Your task to perform on an android device: Open the calendar and show me this week's events? Image 0: 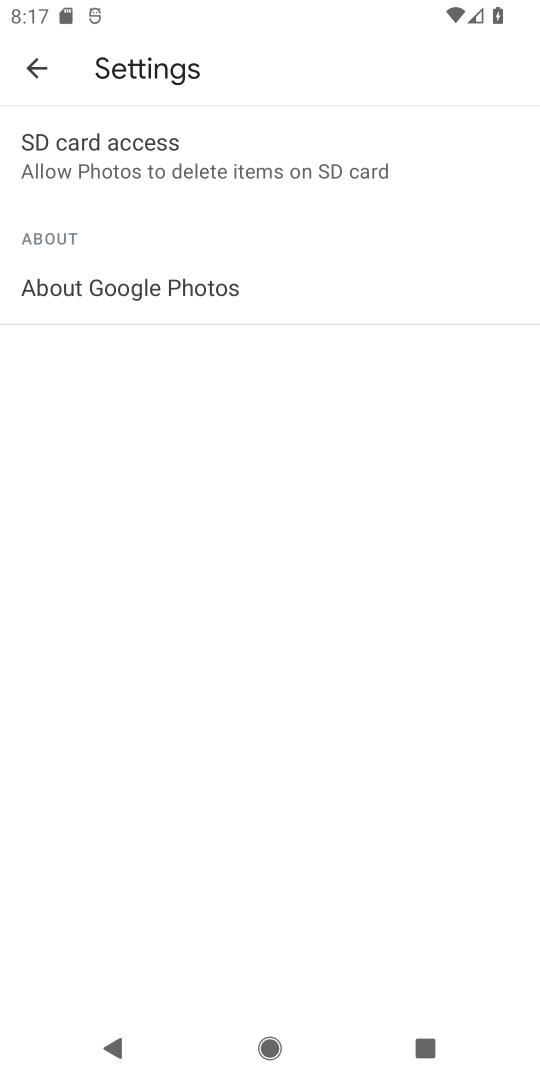
Step 0: press home button
Your task to perform on an android device: Open the calendar and show me this week's events? Image 1: 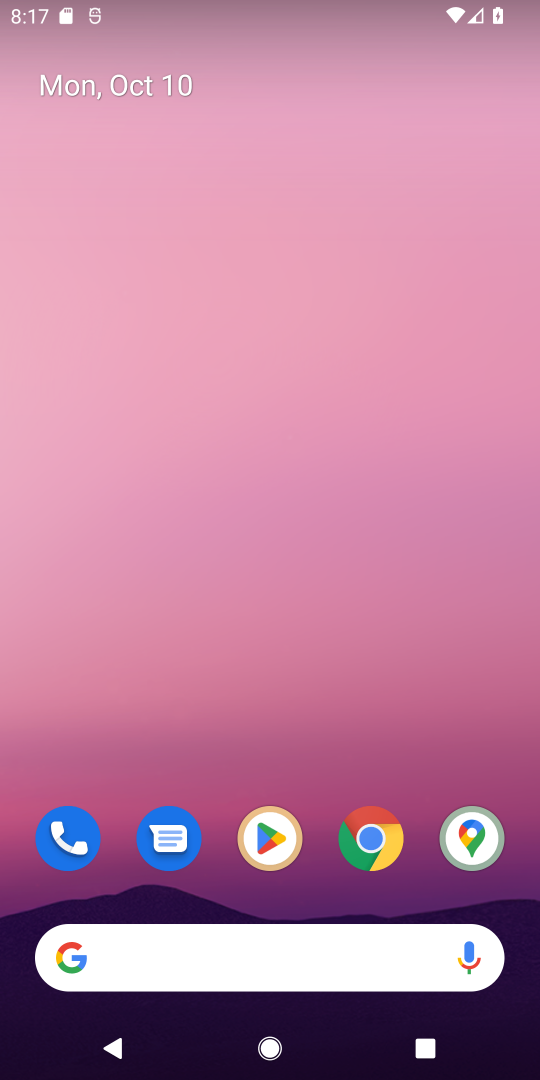
Step 1: drag from (424, 888) to (386, 183)
Your task to perform on an android device: Open the calendar and show me this week's events? Image 2: 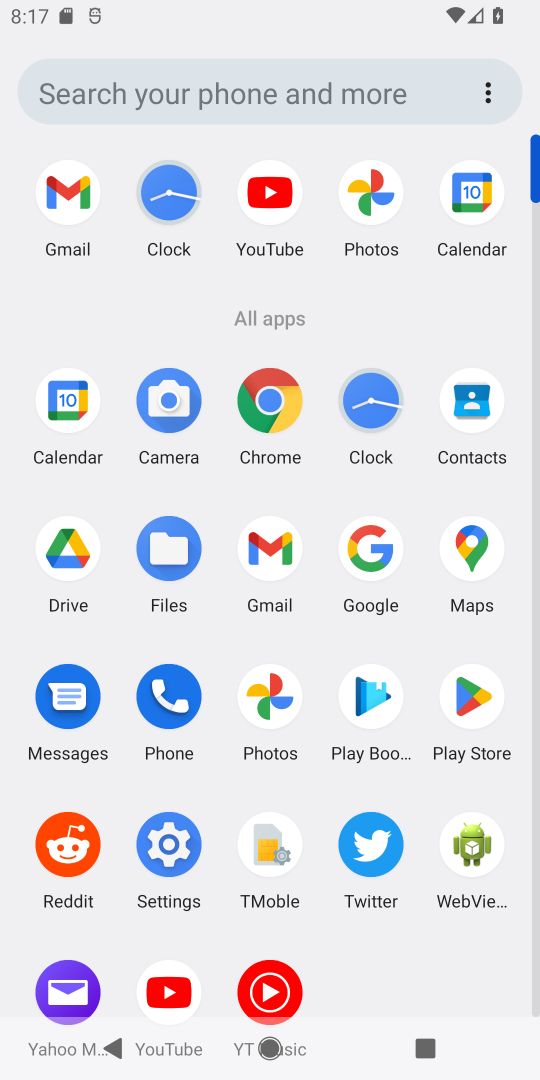
Step 2: click (64, 398)
Your task to perform on an android device: Open the calendar and show me this week's events? Image 3: 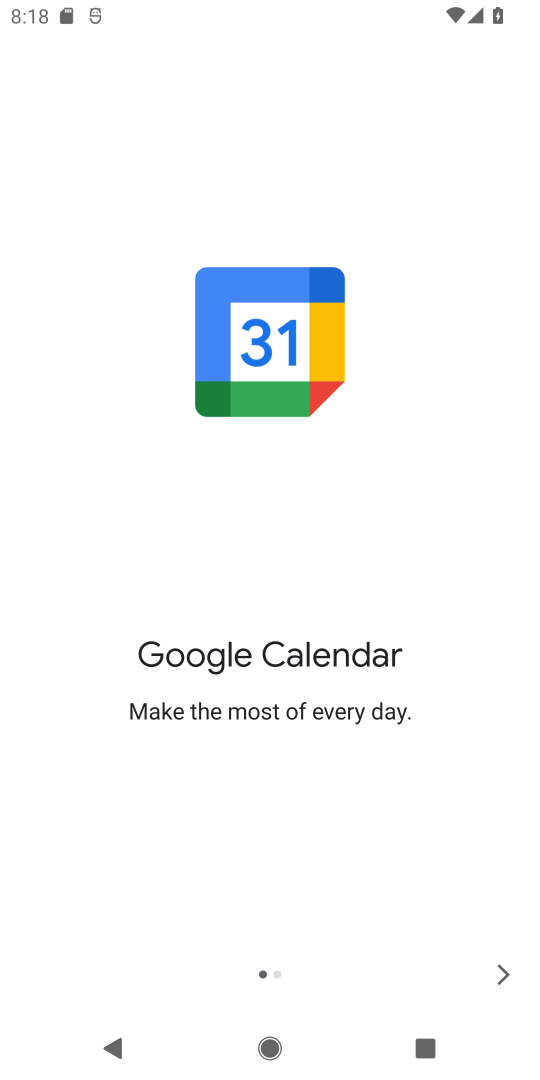
Step 3: click (492, 967)
Your task to perform on an android device: Open the calendar and show me this week's events? Image 4: 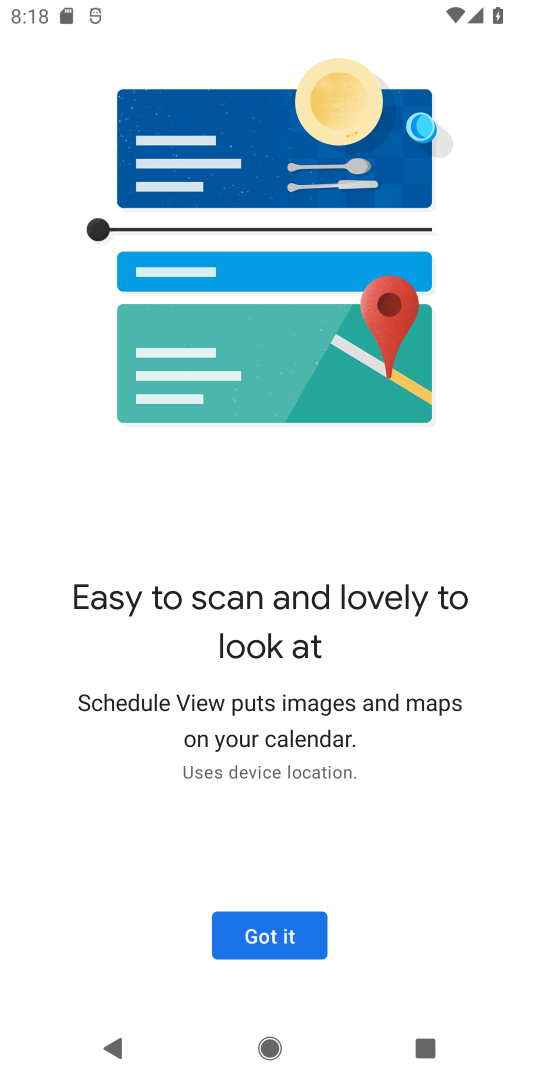
Step 4: click (283, 938)
Your task to perform on an android device: Open the calendar and show me this week's events? Image 5: 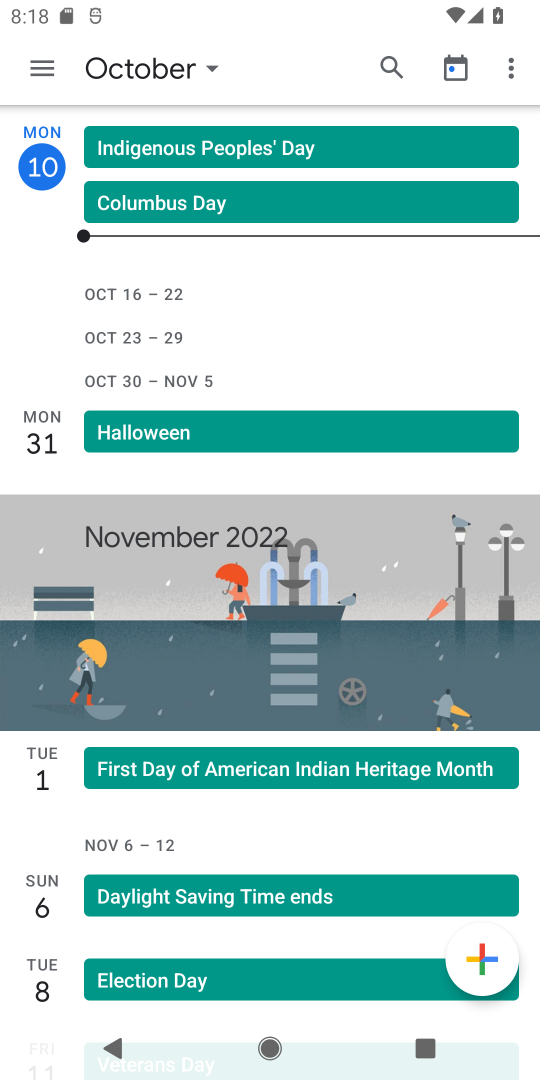
Step 5: click (30, 69)
Your task to perform on an android device: Open the calendar and show me this week's events? Image 6: 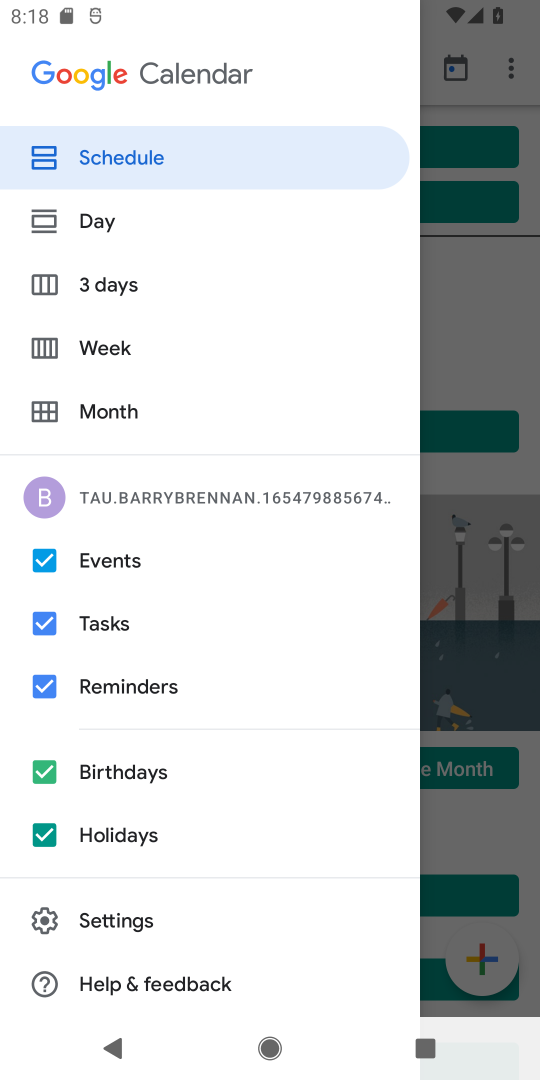
Step 6: click (112, 330)
Your task to perform on an android device: Open the calendar and show me this week's events? Image 7: 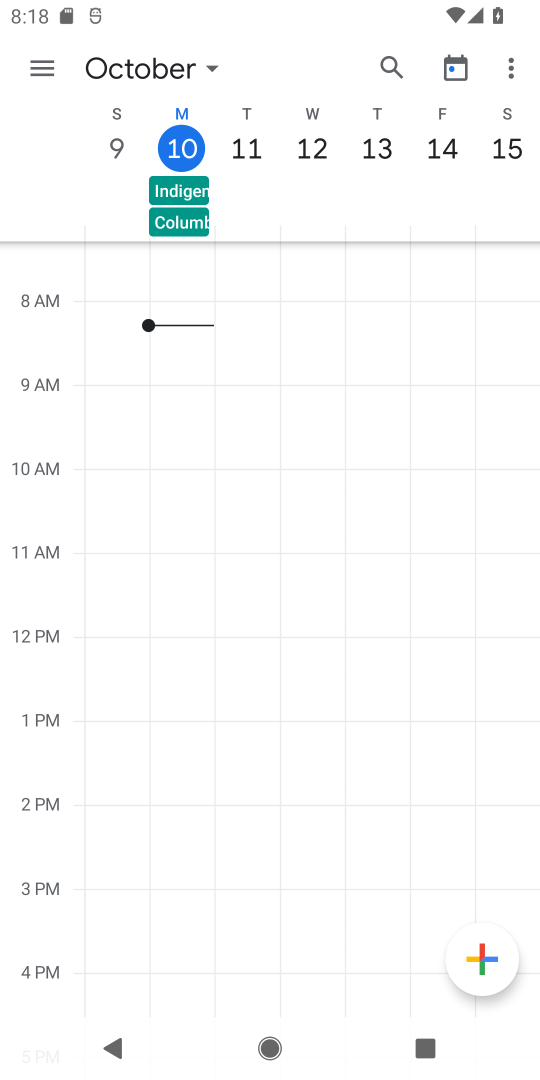
Step 7: task complete